Your task to perform on an android device: toggle notification dots Image 0: 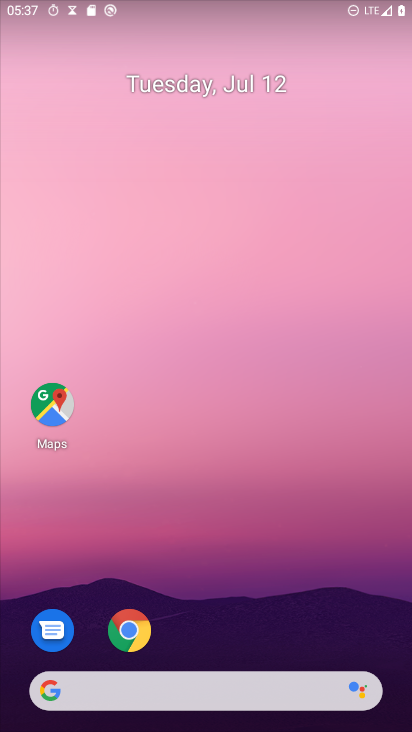
Step 0: drag from (288, 686) to (337, 28)
Your task to perform on an android device: toggle notification dots Image 1: 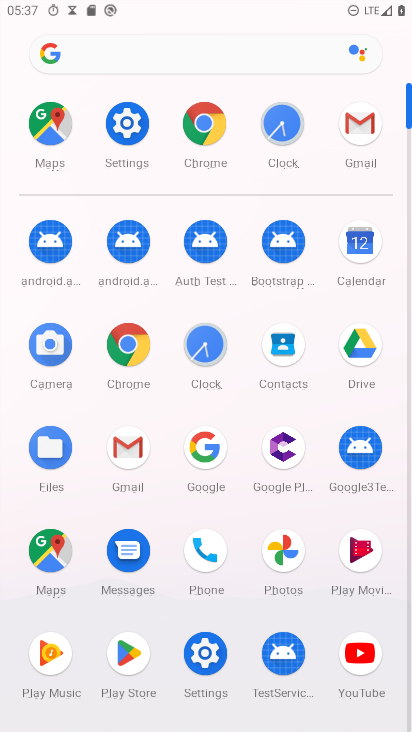
Step 1: click (128, 107)
Your task to perform on an android device: toggle notification dots Image 2: 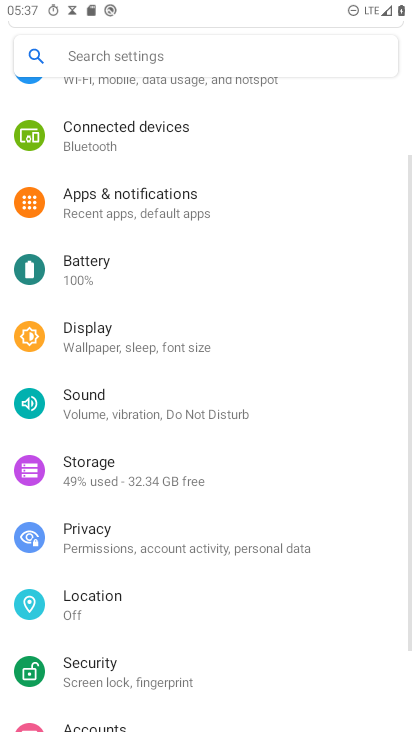
Step 2: click (166, 204)
Your task to perform on an android device: toggle notification dots Image 3: 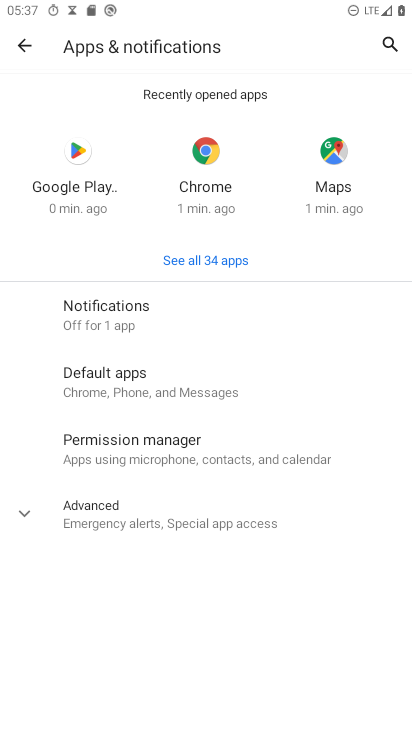
Step 3: click (155, 316)
Your task to perform on an android device: toggle notification dots Image 4: 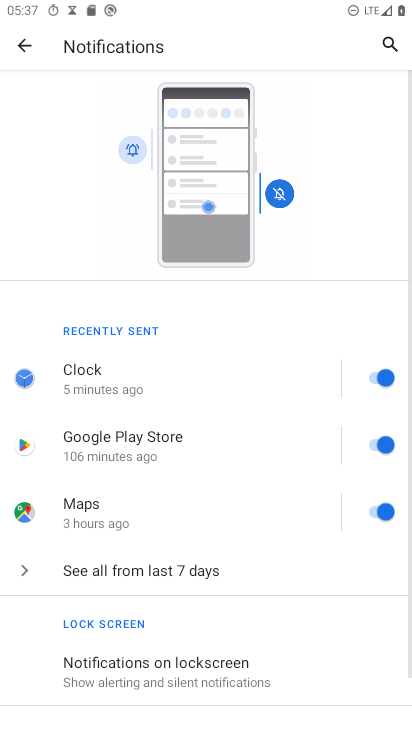
Step 4: drag from (225, 653) to (258, 276)
Your task to perform on an android device: toggle notification dots Image 5: 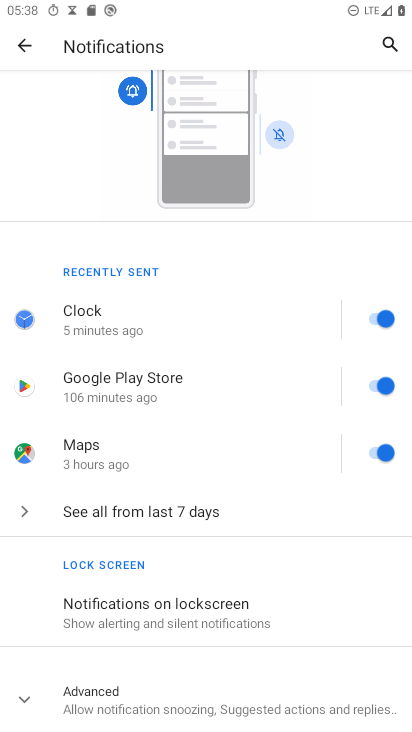
Step 5: click (171, 701)
Your task to perform on an android device: toggle notification dots Image 6: 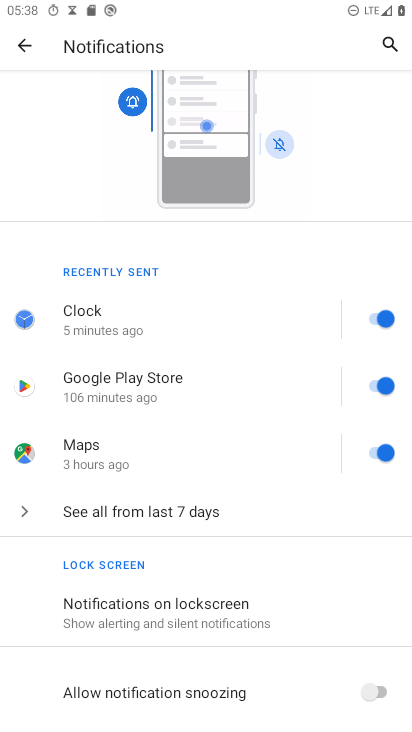
Step 6: drag from (287, 614) to (318, 193)
Your task to perform on an android device: toggle notification dots Image 7: 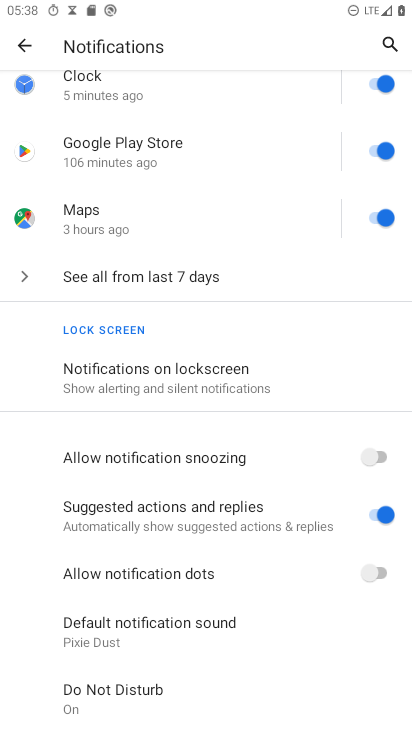
Step 7: click (376, 575)
Your task to perform on an android device: toggle notification dots Image 8: 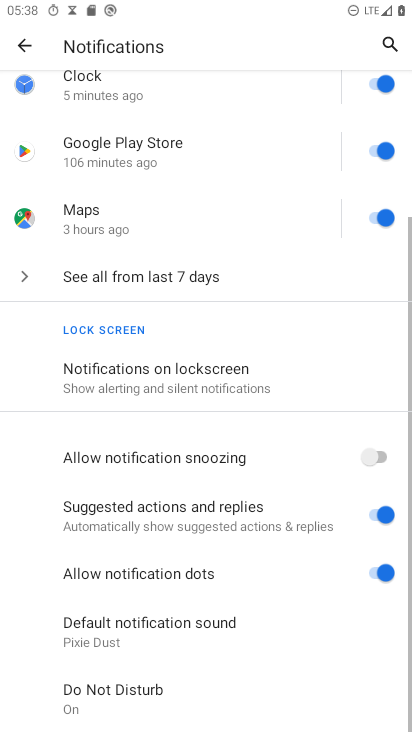
Step 8: task complete